Your task to perform on an android device: Go to Maps Image 0: 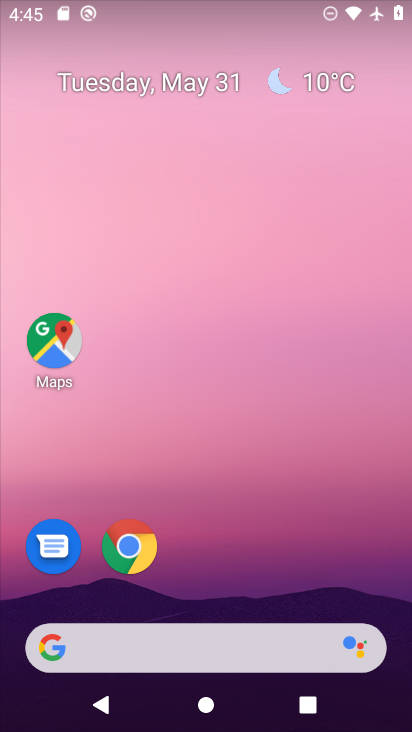
Step 0: click (56, 353)
Your task to perform on an android device: Go to Maps Image 1: 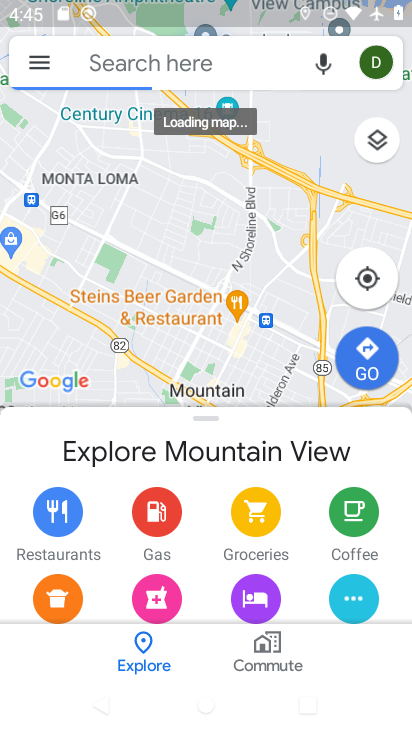
Step 1: task complete